Your task to perform on an android device: Go to privacy settings Image 0: 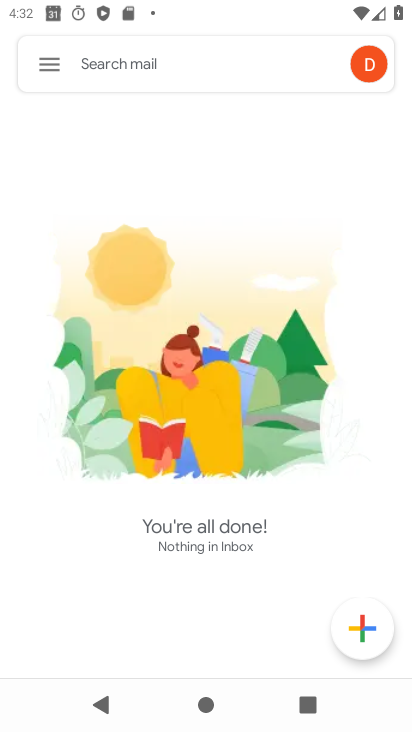
Step 0: press home button
Your task to perform on an android device: Go to privacy settings Image 1: 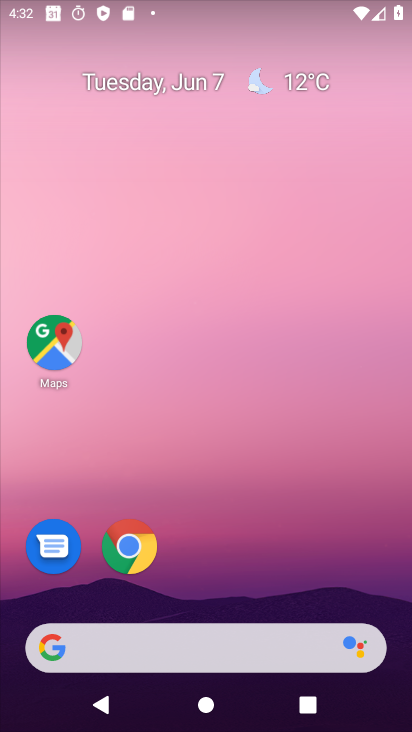
Step 1: drag from (123, 600) to (124, 131)
Your task to perform on an android device: Go to privacy settings Image 2: 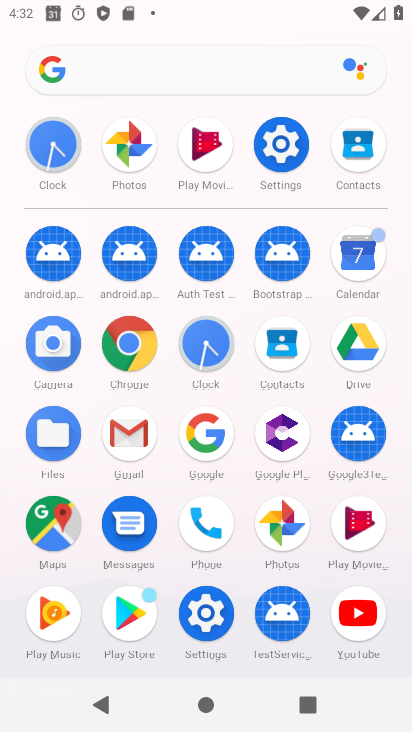
Step 2: click (272, 155)
Your task to perform on an android device: Go to privacy settings Image 3: 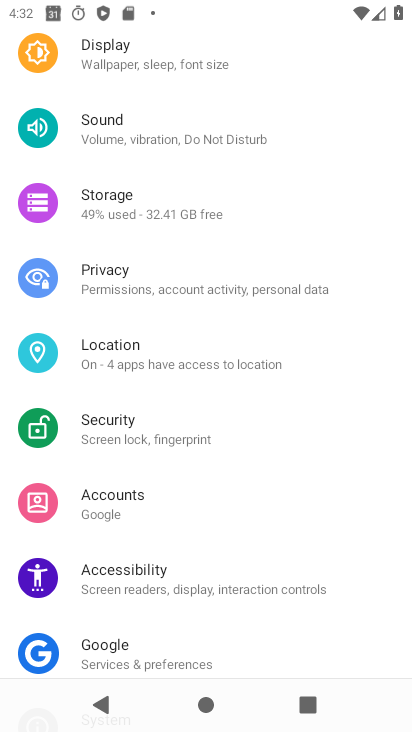
Step 3: click (115, 270)
Your task to perform on an android device: Go to privacy settings Image 4: 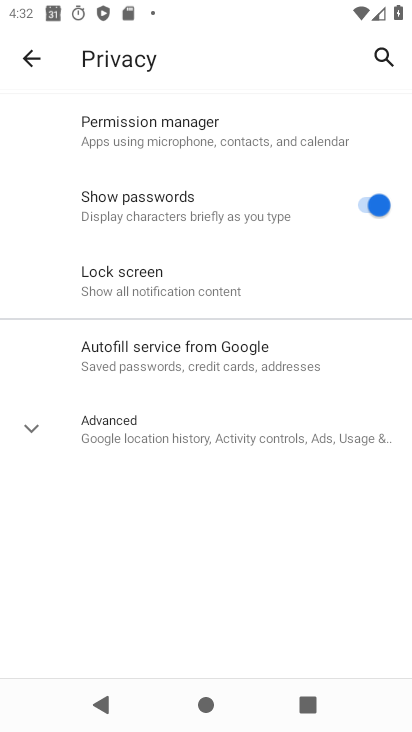
Step 4: task complete